Your task to perform on an android device: Open Google Image 0: 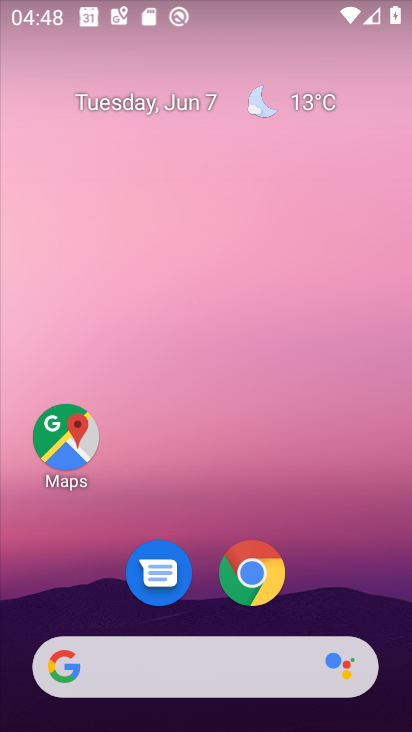
Step 0: drag from (321, 565) to (375, 85)
Your task to perform on an android device: Open Google Image 1: 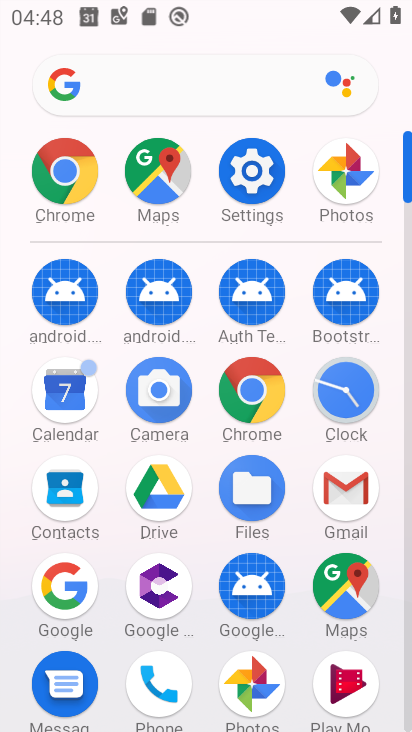
Step 1: click (67, 572)
Your task to perform on an android device: Open Google Image 2: 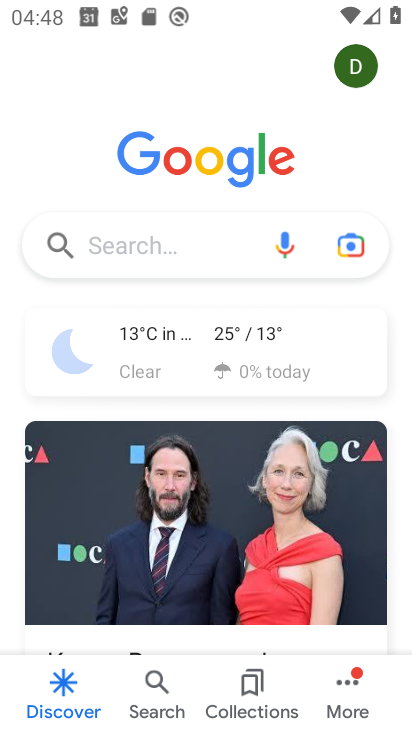
Step 2: task complete